Your task to perform on an android device: Open Amazon Image 0: 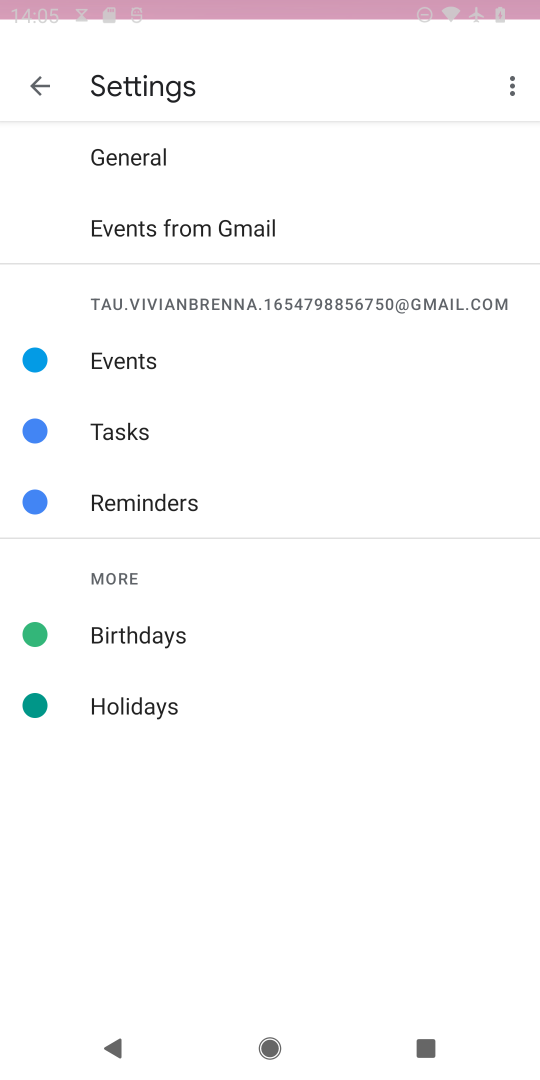
Step 0: press home button
Your task to perform on an android device: Open Amazon Image 1: 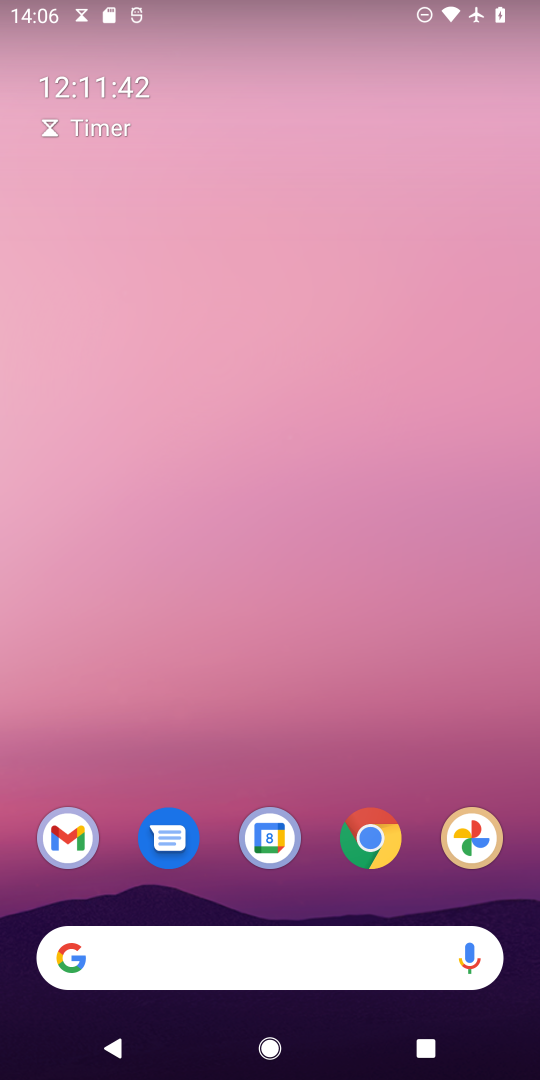
Step 1: click (76, 946)
Your task to perform on an android device: Open Amazon Image 2: 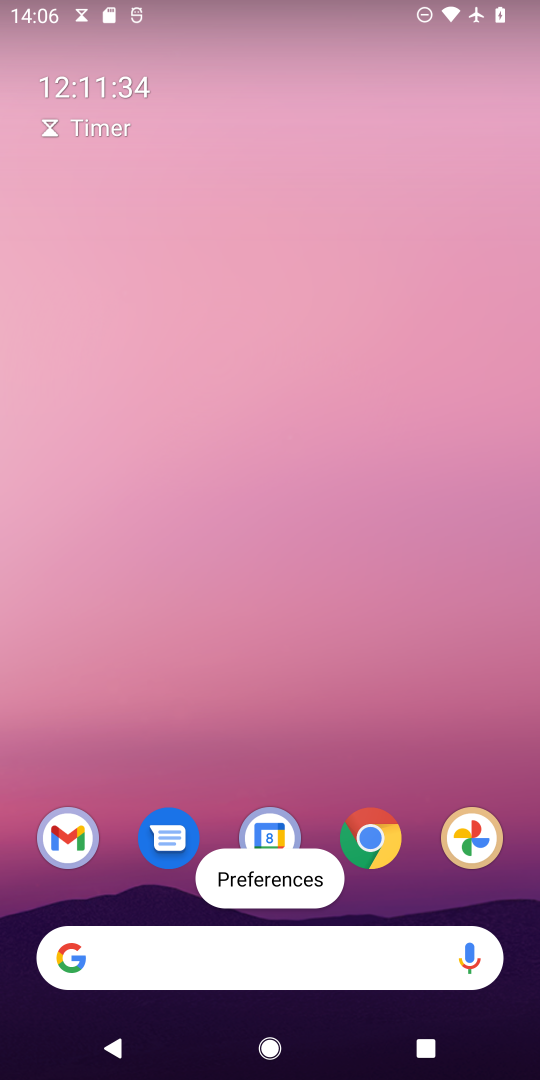
Step 2: click (61, 964)
Your task to perform on an android device: Open Amazon Image 3: 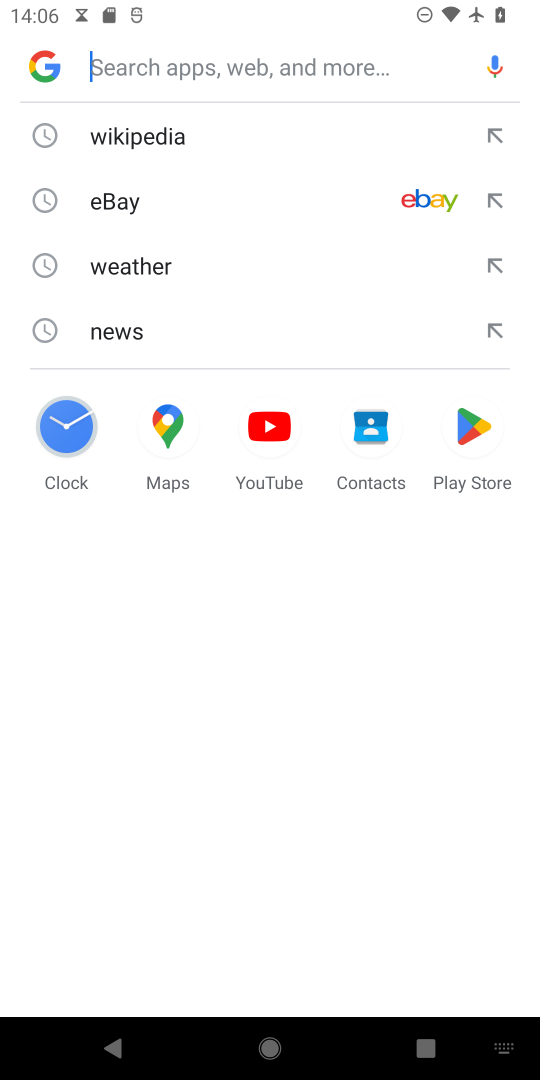
Step 3: type "Amazon"
Your task to perform on an android device: Open Amazon Image 4: 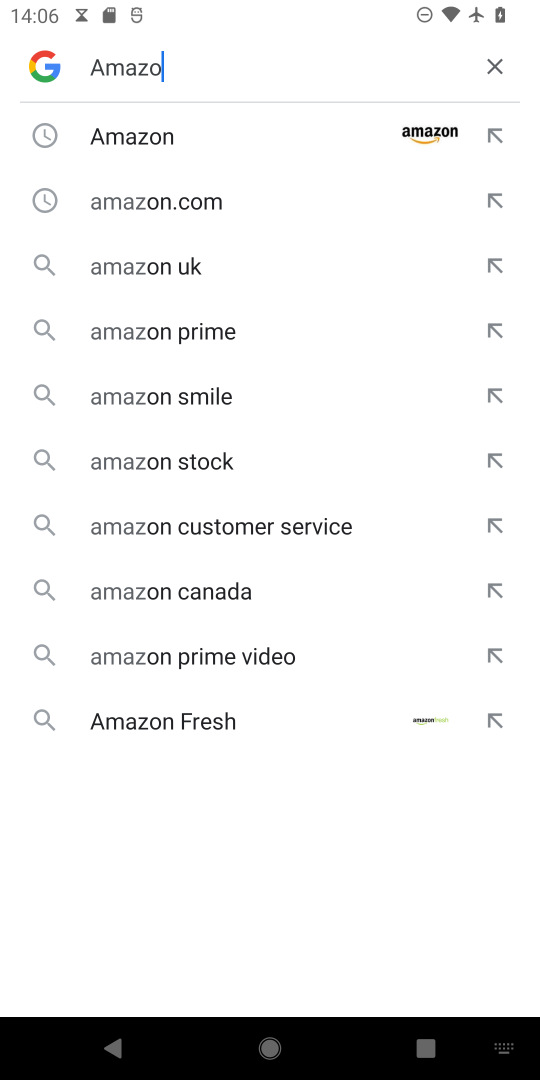
Step 4: press enter
Your task to perform on an android device: Open Amazon Image 5: 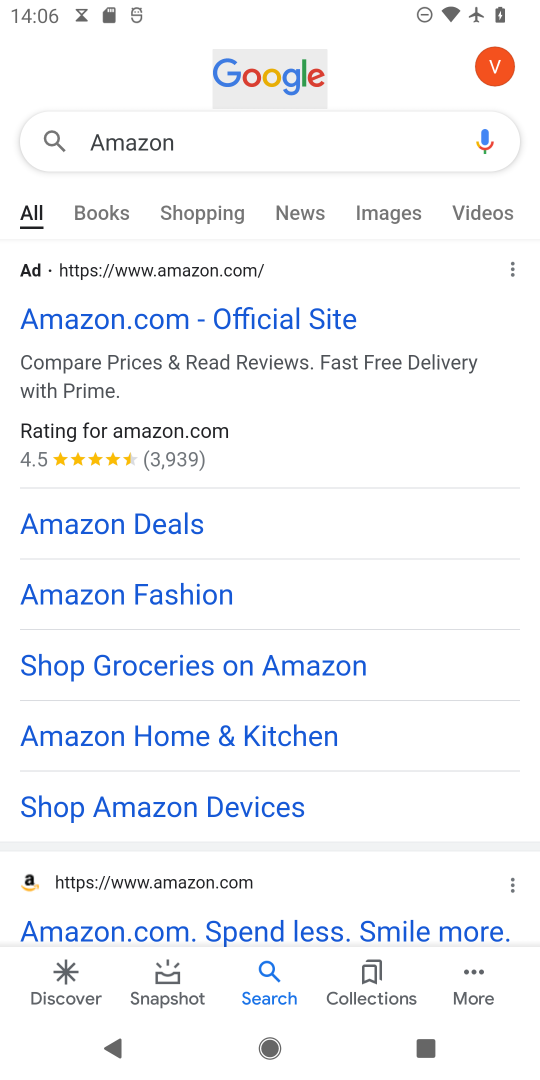
Step 5: click (149, 336)
Your task to perform on an android device: Open Amazon Image 6: 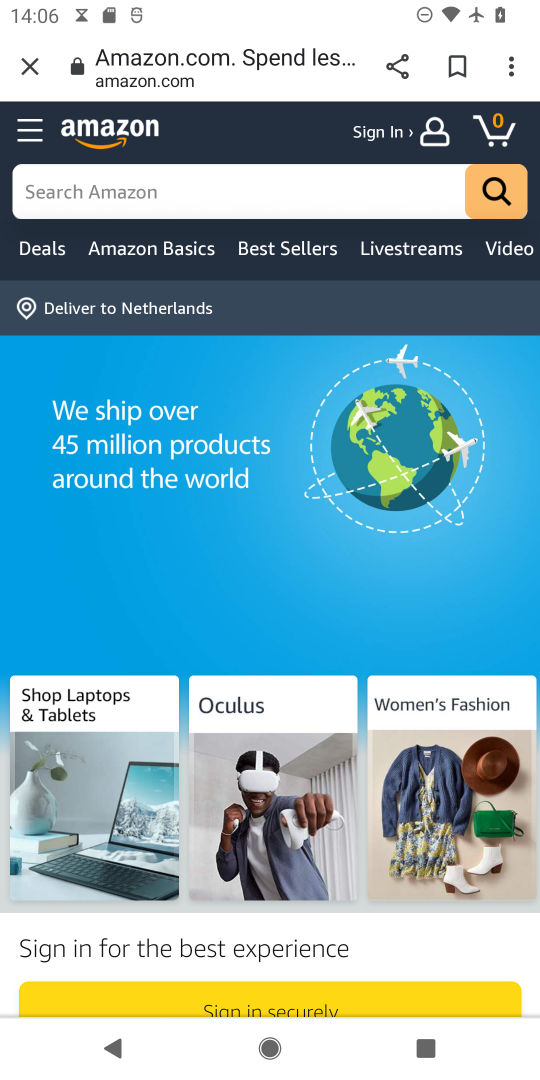
Step 6: task complete